Your task to perform on an android device: Open privacy settings Image 0: 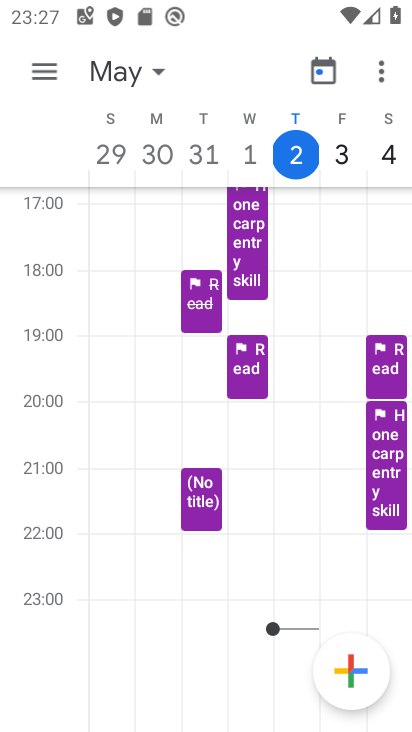
Step 0: press home button
Your task to perform on an android device: Open privacy settings Image 1: 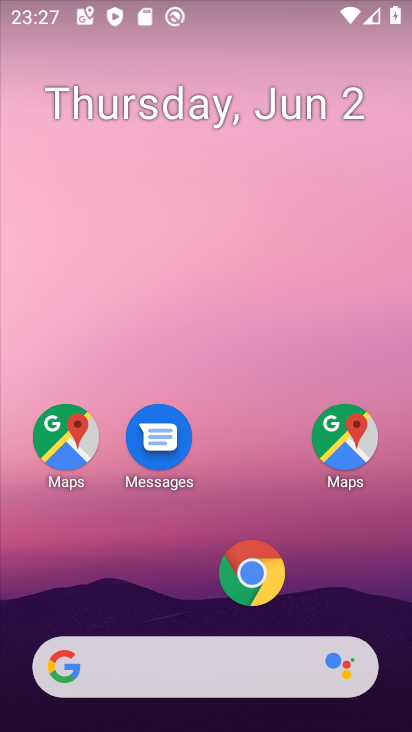
Step 1: drag from (241, 478) to (203, 155)
Your task to perform on an android device: Open privacy settings Image 2: 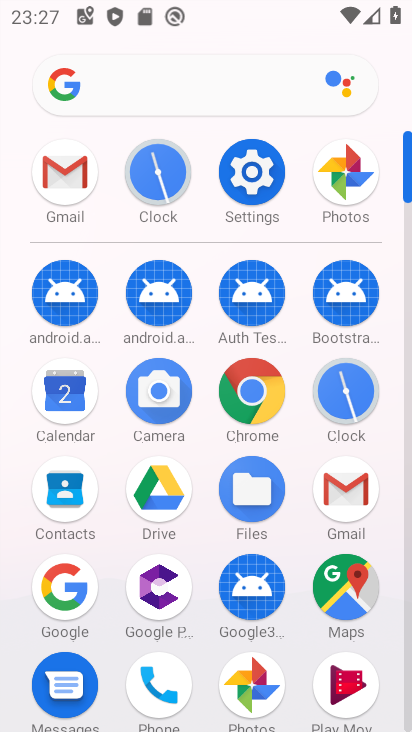
Step 2: click (271, 156)
Your task to perform on an android device: Open privacy settings Image 3: 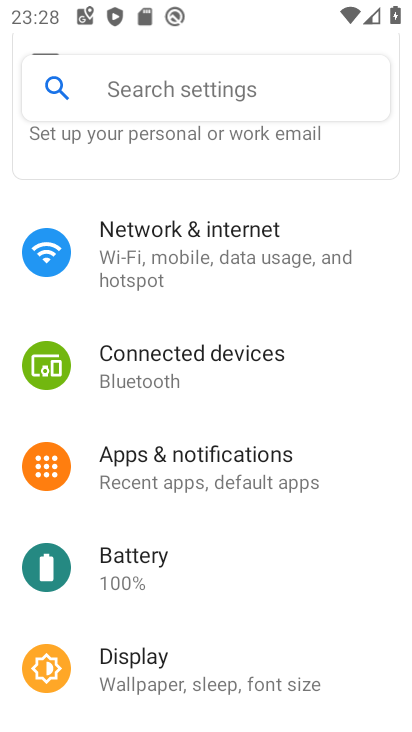
Step 3: drag from (215, 616) to (158, 286)
Your task to perform on an android device: Open privacy settings Image 4: 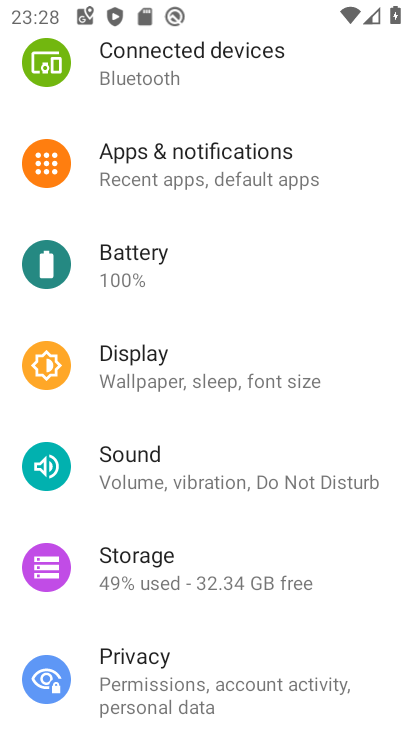
Step 4: click (169, 672)
Your task to perform on an android device: Open privacy settings Image 5: 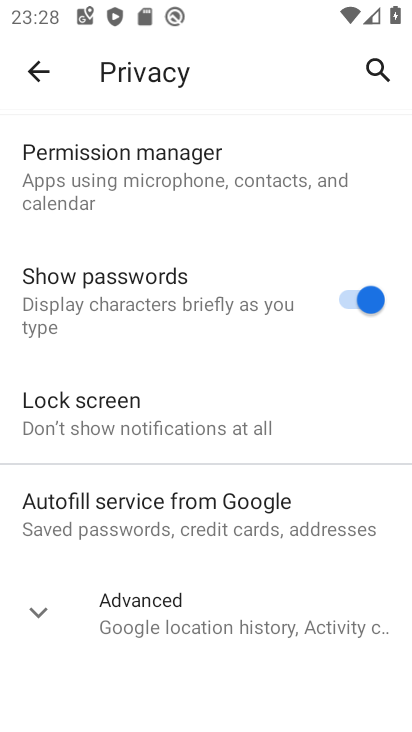
Step 5: task complete